Your task to perform on an android device: turn notification dots on Image 0: 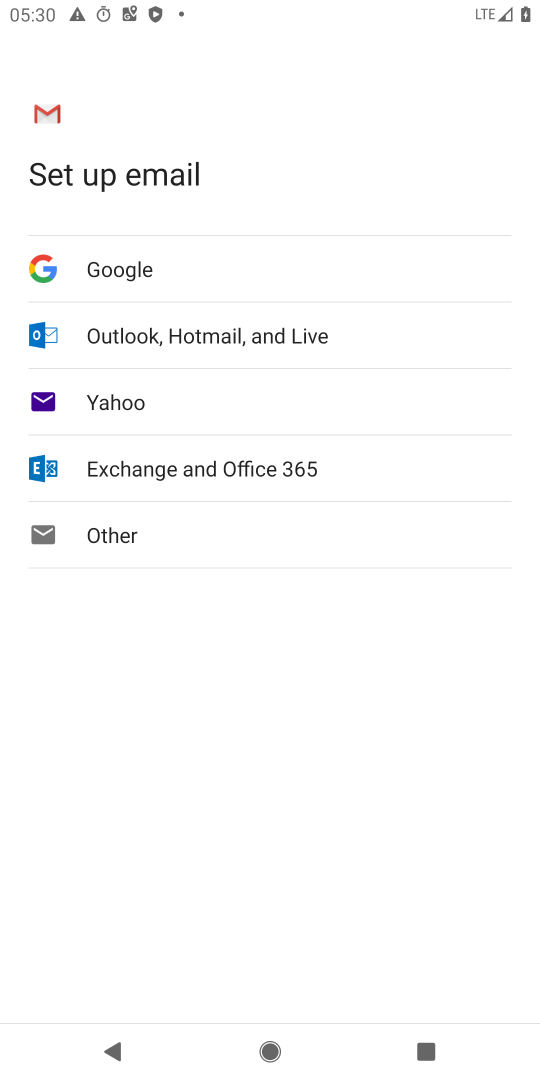
Step 0: press home button
Your task to perform on an android device: turn notification dots on Image 1: 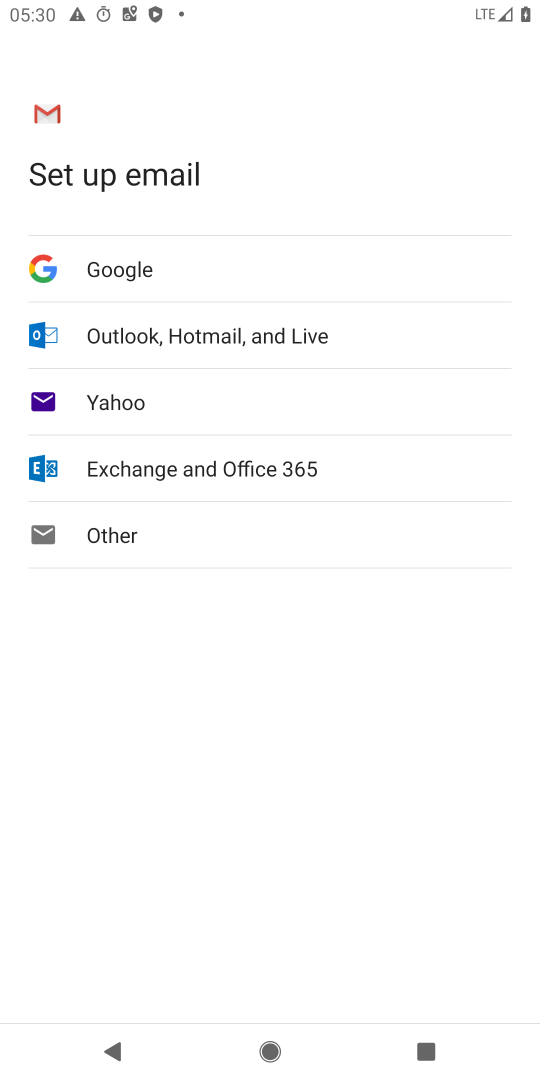
Step 1: press home button
Your task to perform on an android device: turn notification dots on Image 2: 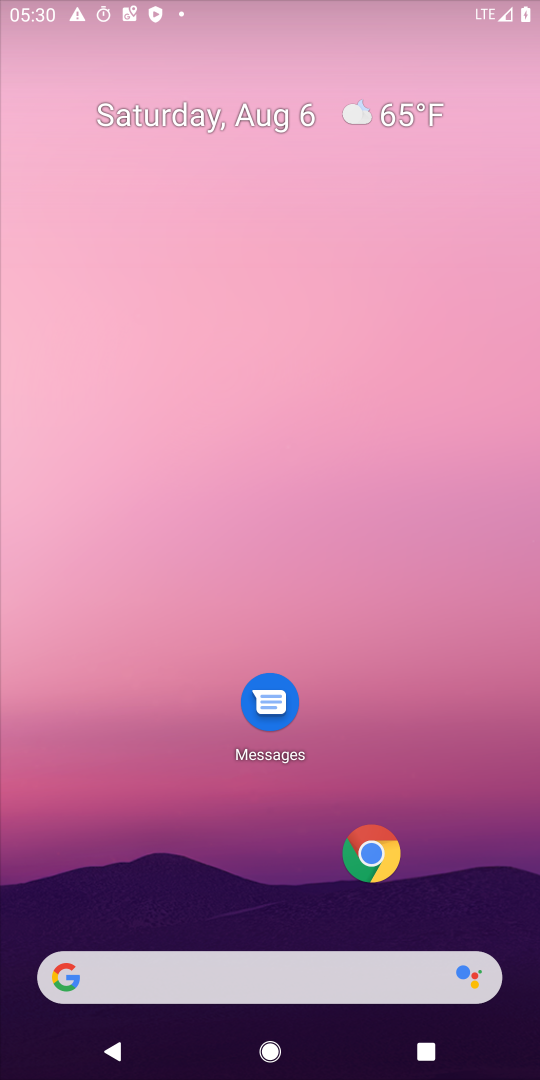
Step 2: press home button
Your task to perform on an android device: turn notification dots on Image 3: 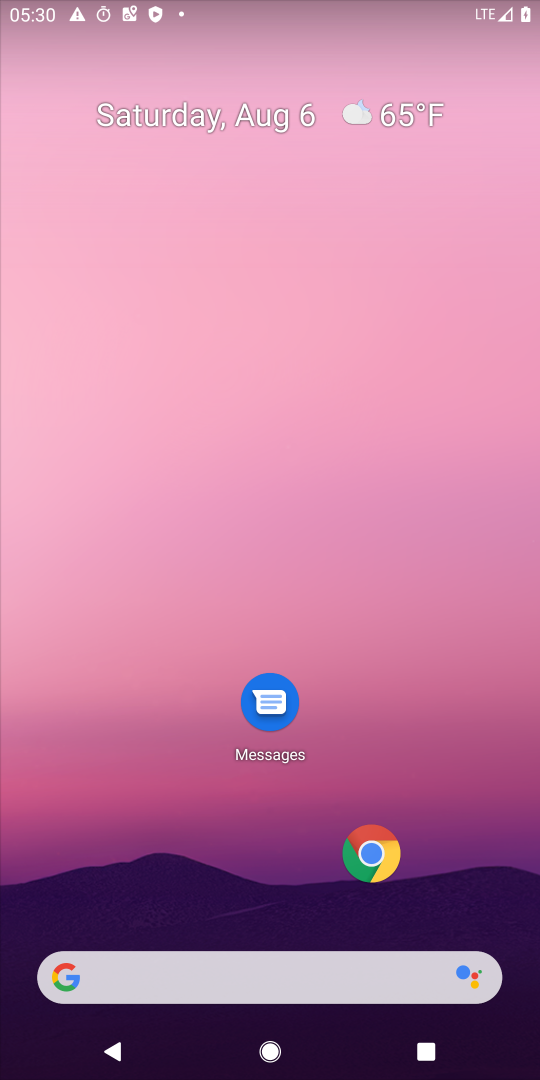
Step 3: drag from (479, 791) to (436, 115)
Your task to perform on an android device: turn notification dots on Image 4: 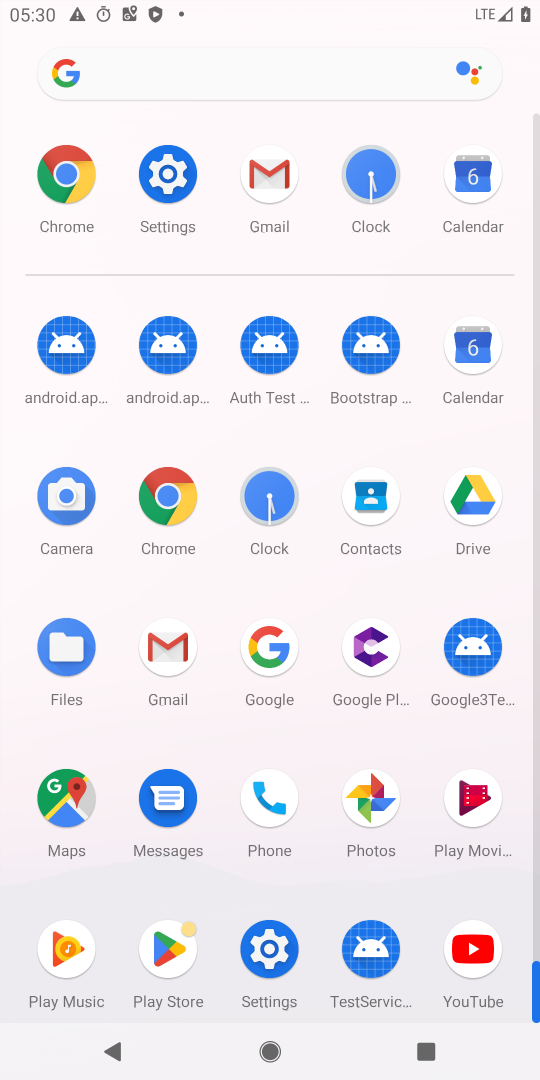
Step 4: click (184, 177)
Your task to perform on an android device: turn notification dots on Image 5: 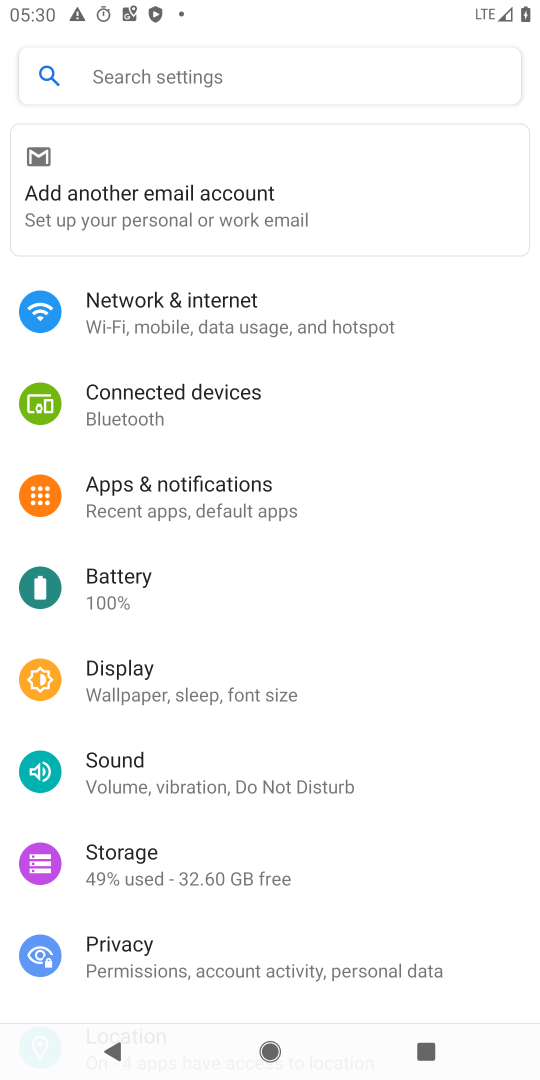
Step 5: click (183, 513)
Your task to perform on an android device: turn notification dots on Image 6: 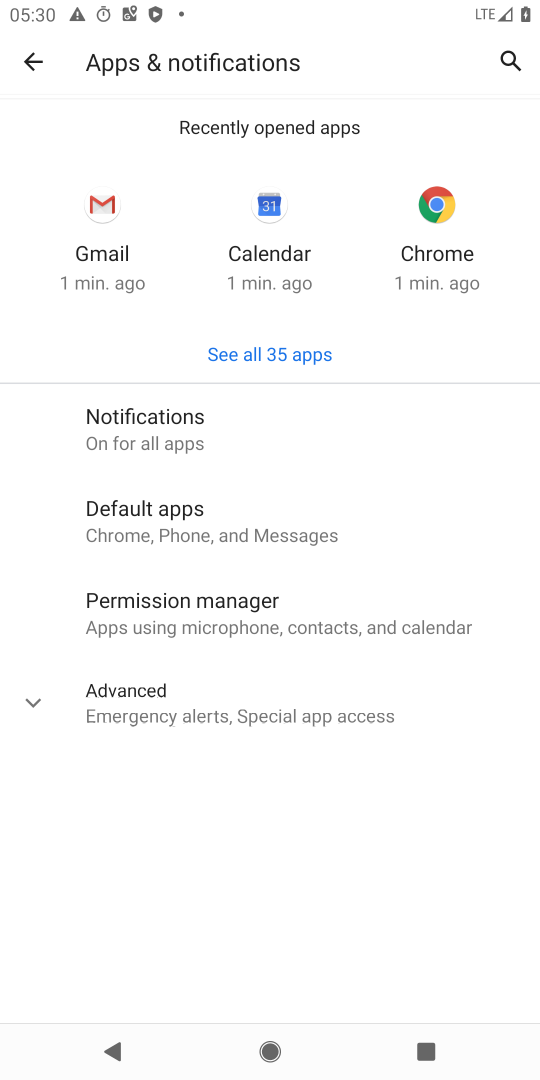
Step 6: click (142, 408)
Your task to perform on an android device: turn notification dots on Image 7: 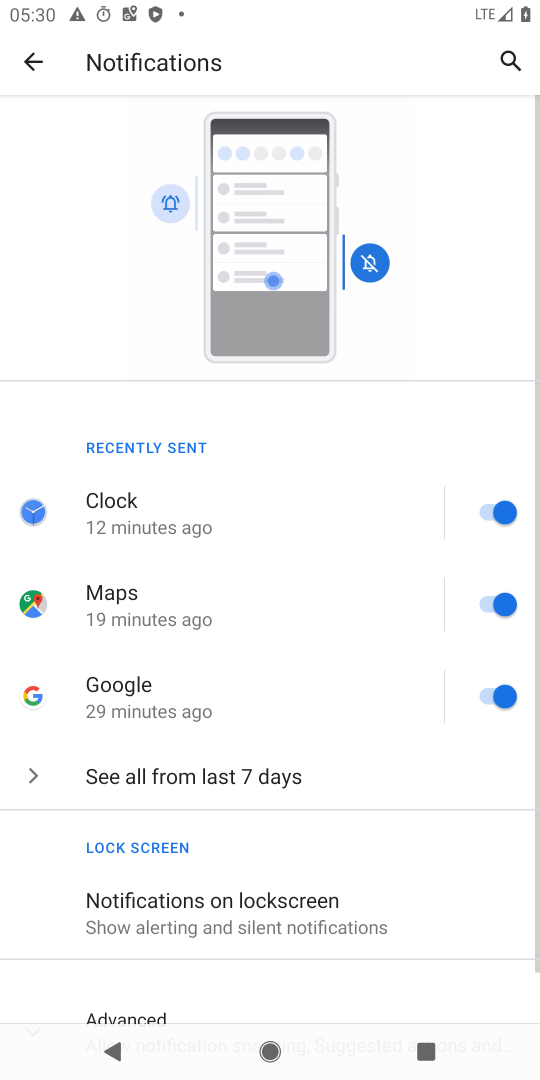
Step 7: drag from (261, 803) to (297, 208)
Your task to perform on an android device: turn notification dots on Image 8: 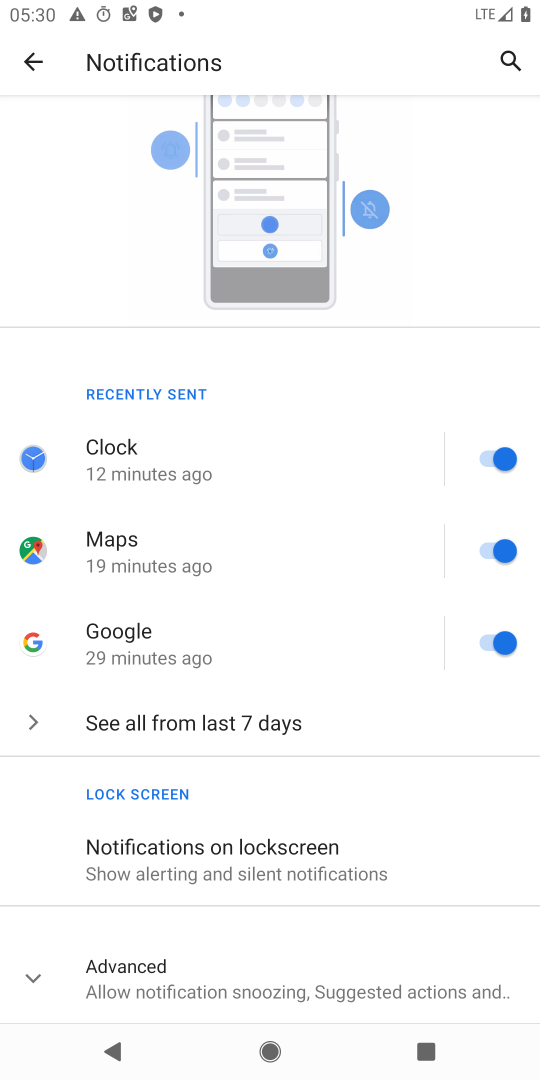
Step 8: click (240, 966)
Your task to perform on an android device: turn notification dots on Image 9: 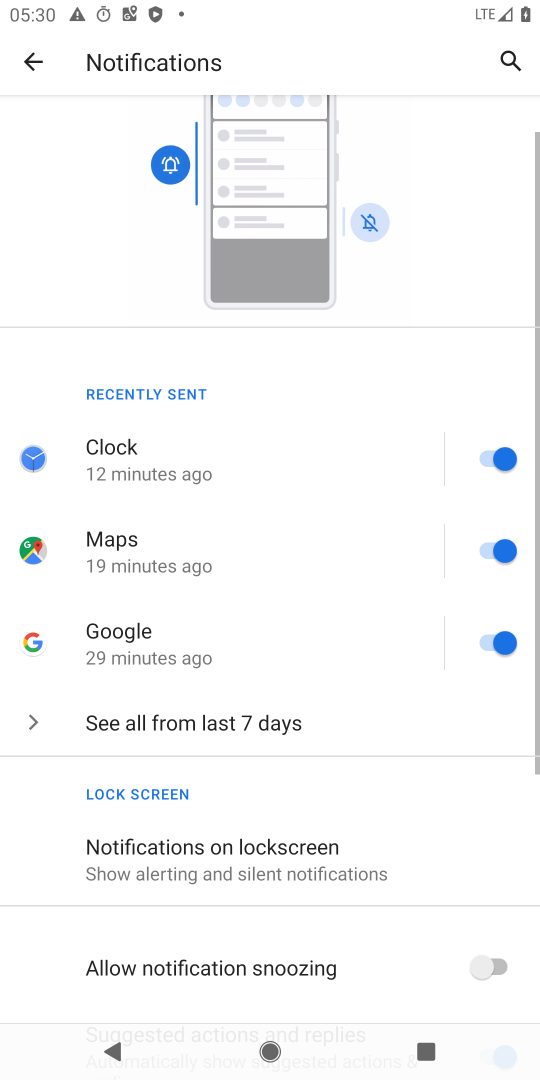
Step 9: task complete